Your task to perform on an android device: toggle notification dots Image 0: 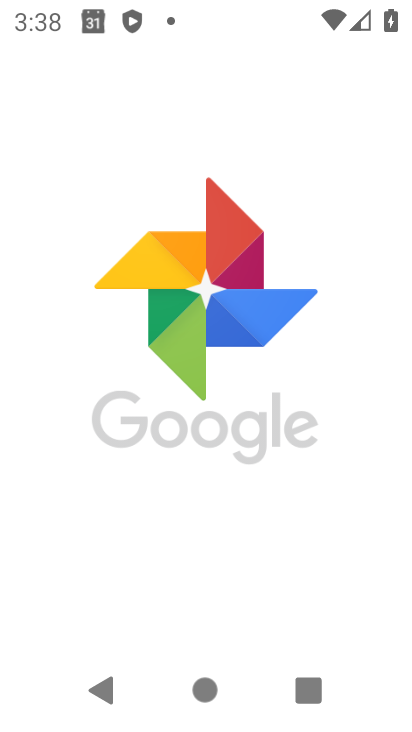
Step 0: drag from (315, 523) to (388, 274)
Your task to perform on an android device: toggle notification dots Image 1: 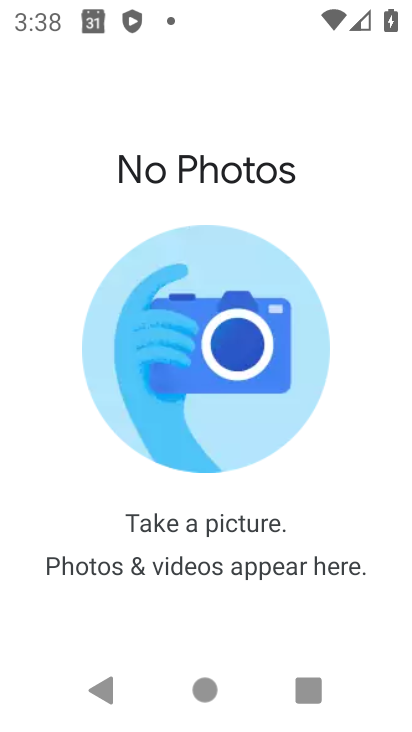
Step 1: press home button
Your task to perform on an android device: toggle notification dots Image 2: 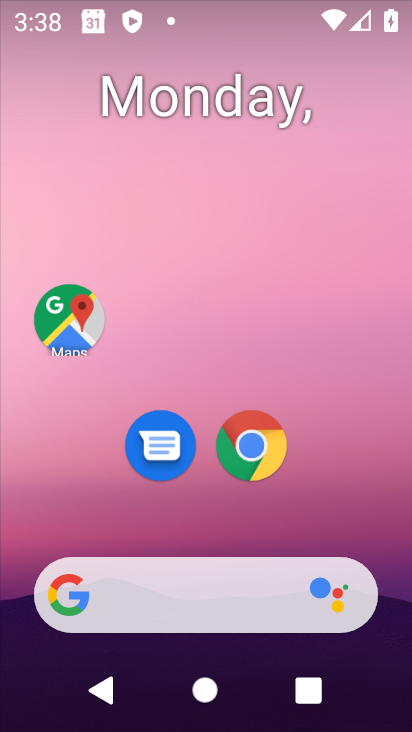
Step 2: drag from (274, 513) to (249, 79)
Your task to perform on an android device: toggle notification dots Image 3: 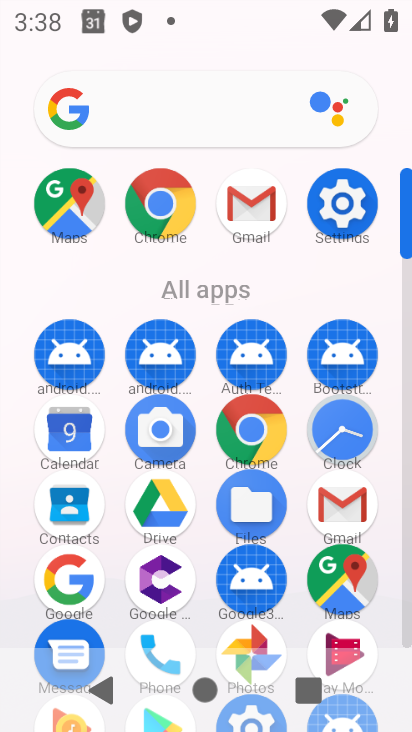
Step 3: click (347, 202)
Your task to perform on an android device: toggle notification dots Image 4: 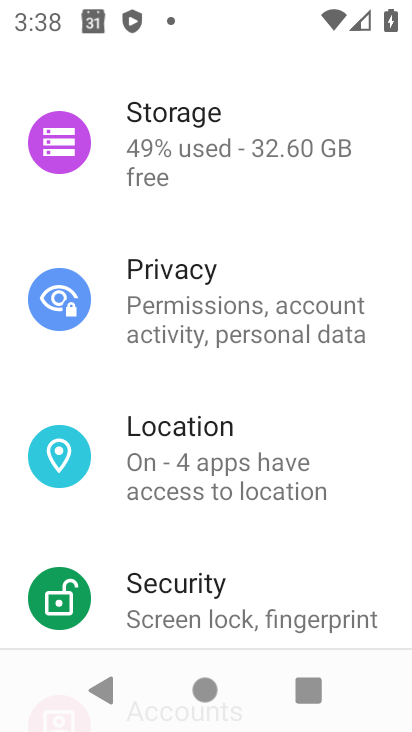
Step 4: drag from (246, 237) to (159, 730)
Your task to perform on an android device: toggle notification dots Image 5: 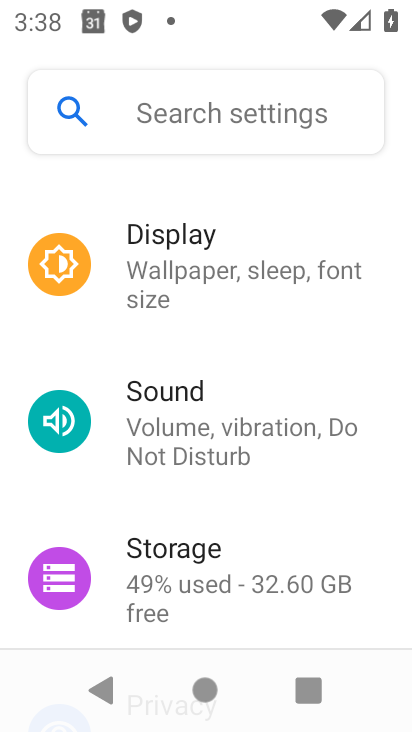
Step 5: drag from (148, 354) to (154, 578)
Your task to perform on an android device: toggle notification dots Image 6: 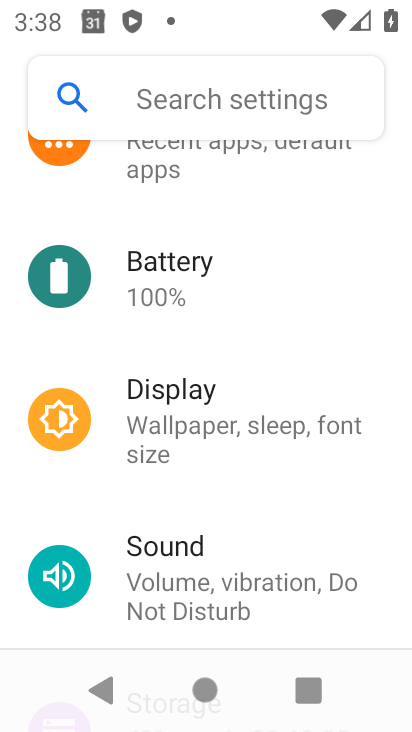
Step 6: drag from (119, 269) to (134, 537)
Your task to perform on an android device: toggle notification dots Image 7: 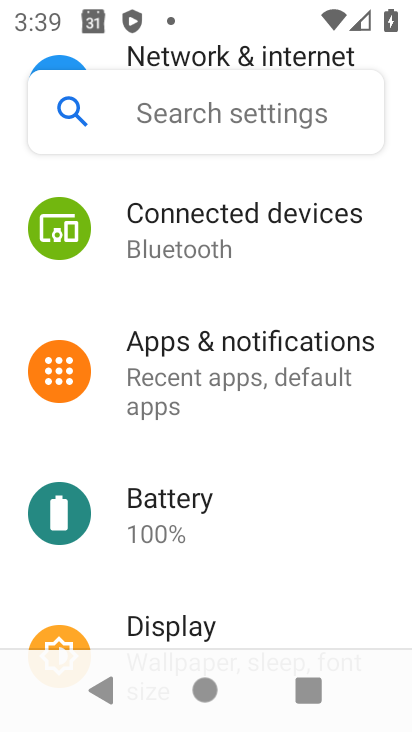
Step 7: click (153, 377)
Your task to perform on an android device: toggle notification dots Image 8: 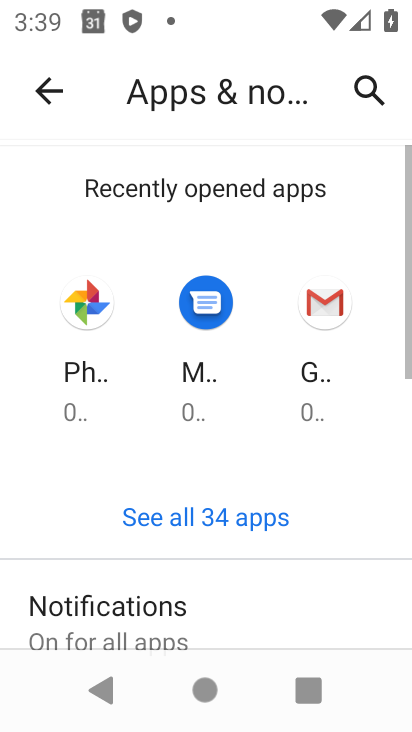
Step 8: click (152, 602)
Your task to perform on an android device: toggle notification dots Image 9: 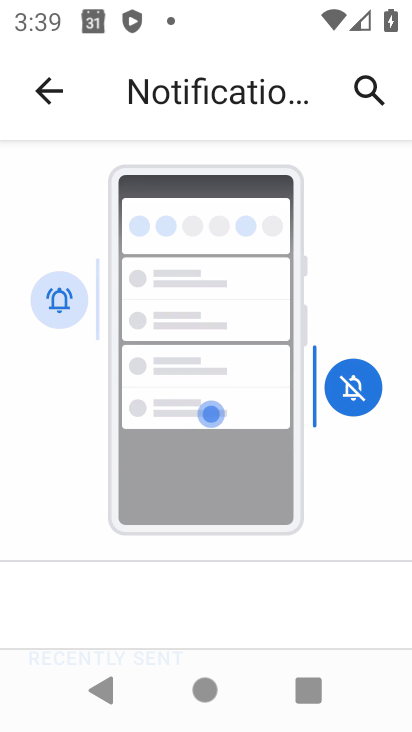
Step 9: drag from (187, 546) to (223, 247)
Your task to perform on an android device: toggle notification dots Image 10: 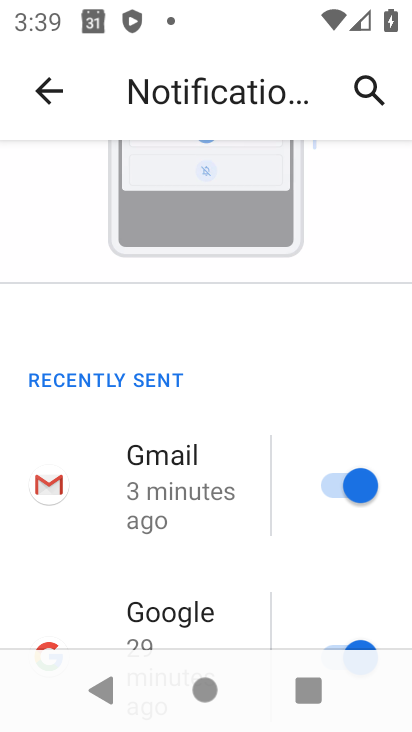
Step 10: drag from (199, 620) to (218, 273)
Your task to perform on an android device: toggle notification dots Image 11: 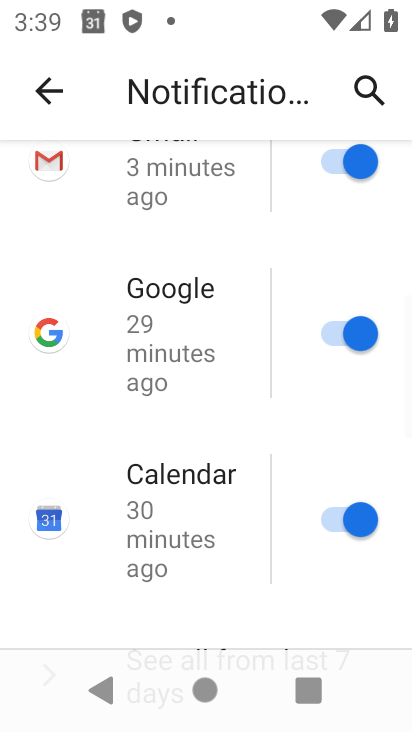
Step 11: drag from (238, 594) to (237, 309)
Your task to perform on an android device: toggle notification dots Image 12: 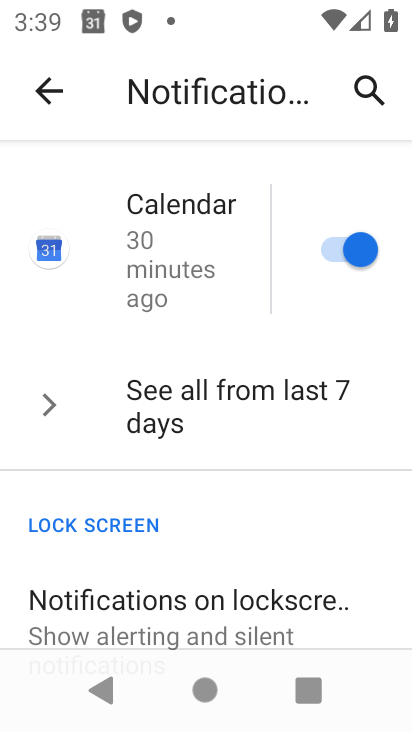
Step 12: drag from (265, 589) to (268, 390)
Your task to perform on an android device: toggle notification dots Image 13: 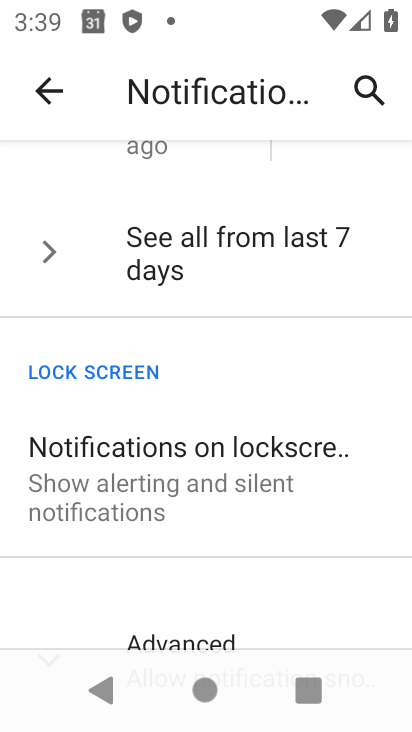
Step 13: drag from (223, 618) to (396, 290)
Your task to perform on an android device: toggle notification dots Image 14: 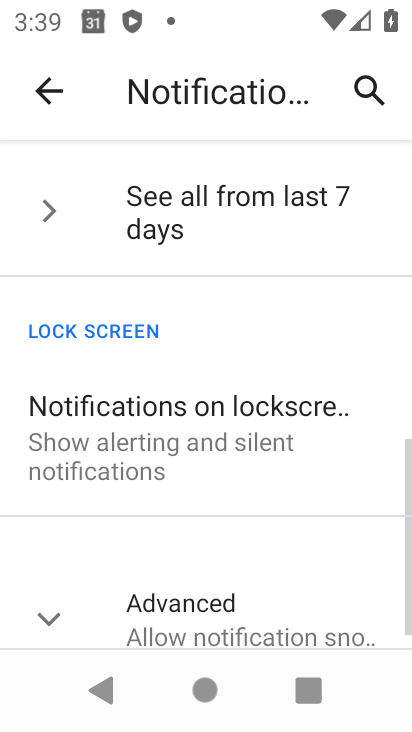
Step 14: click (223, 578)
Your task to perform on an android device: toggle notification dots Image 15: 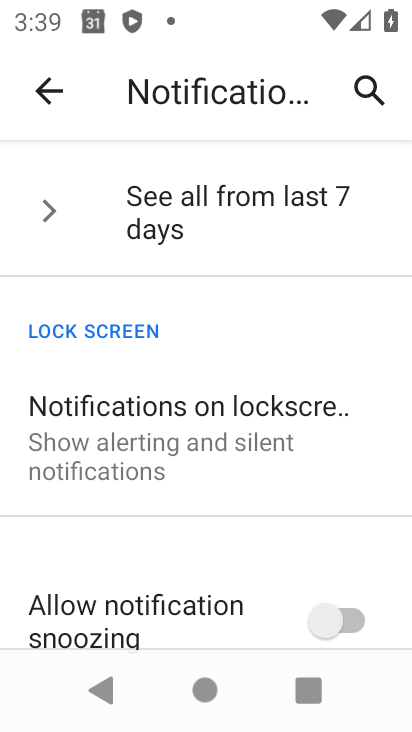
Step 15: drag from (233, 614) to (237, 242)
Your task to perform on an android device: toggle notification dots Image 16: 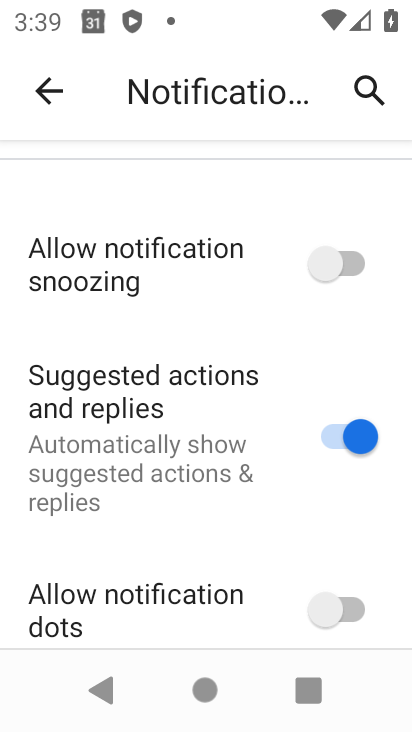
Step 16: drag from (272, 602) to (254, 406)
Your task to perform on an android device: toggle notification dots Image 17: 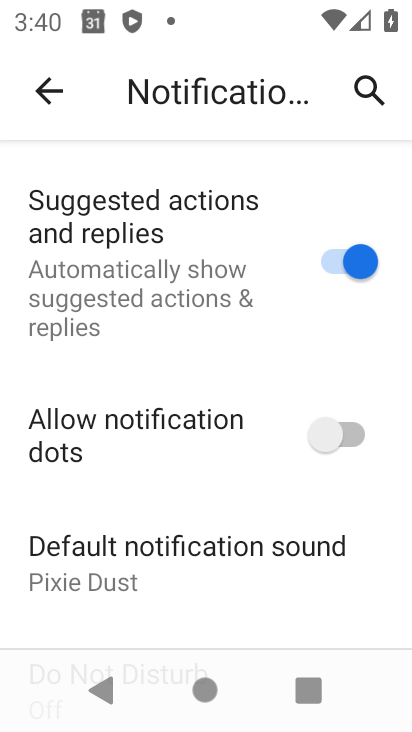
Step 17: click (347, 441)
Your task to perform on an android device: toggle notification dots Image 18: 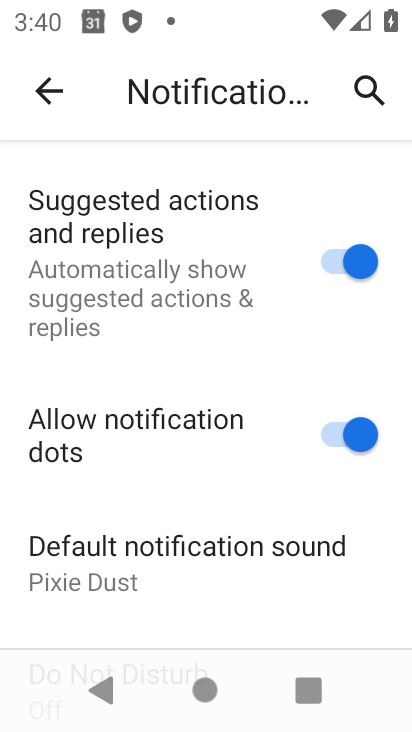
Step 18: task complete